Your task to perform on an android device: Open Maps and search for coffee Image 0: 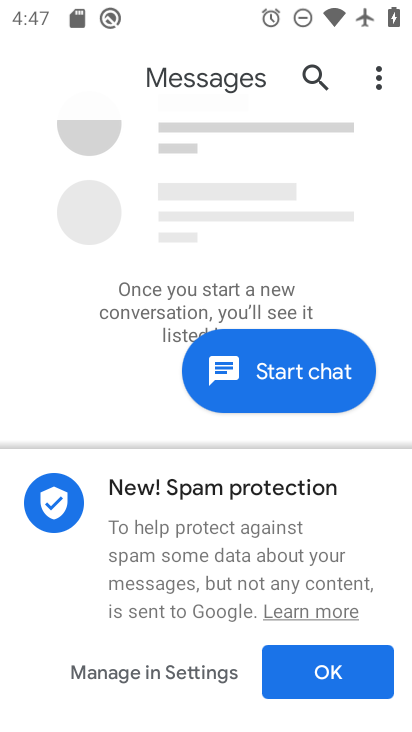
Step 0: press home button
Your task to perform on an android device: Open Maps and search for coffee Image 1: 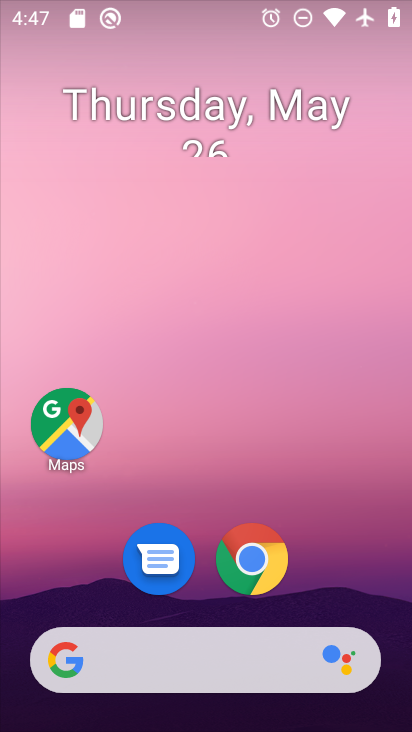
Step 1: click (76, 436)
Your task to perform on an android device: Open Maps and search for coffee Image 2: 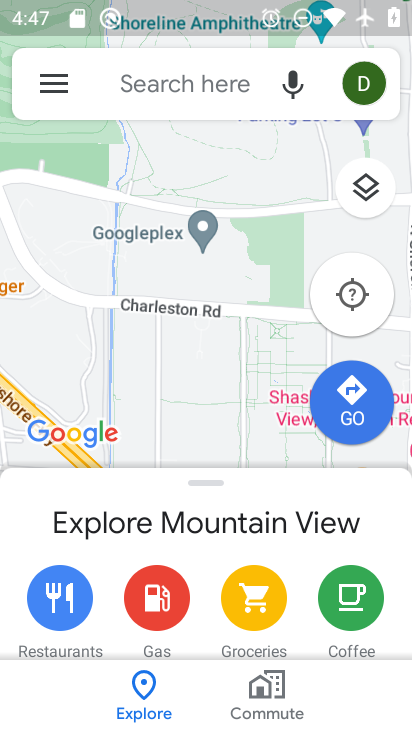
Step 2: click (219, 71)
Your task to perform on an android device: Open Maps and search for coffee Image 3: 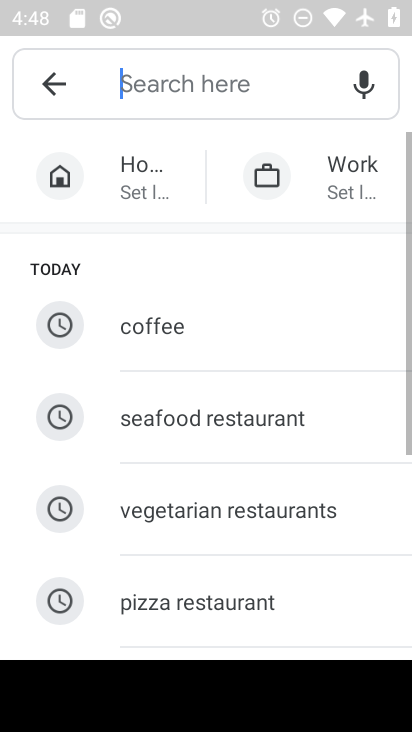
Step 3: click (204, 340)
Your task to perform on an android device: Open Maps and search for coffee Image 4: 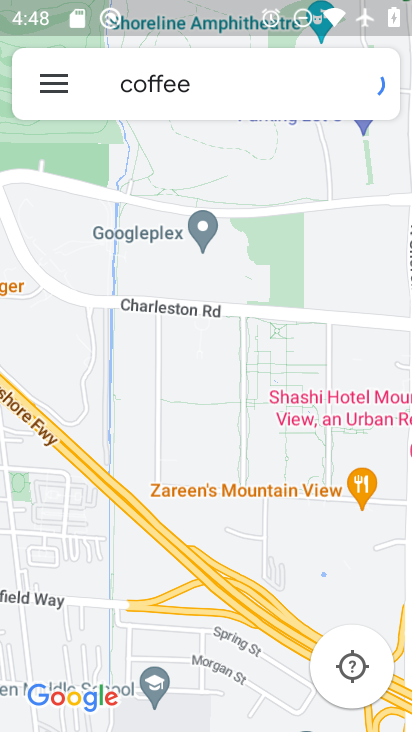
Step 4: task complete